Your task to perform on an android device: turn vacation reply on in the gmail app Image 0: 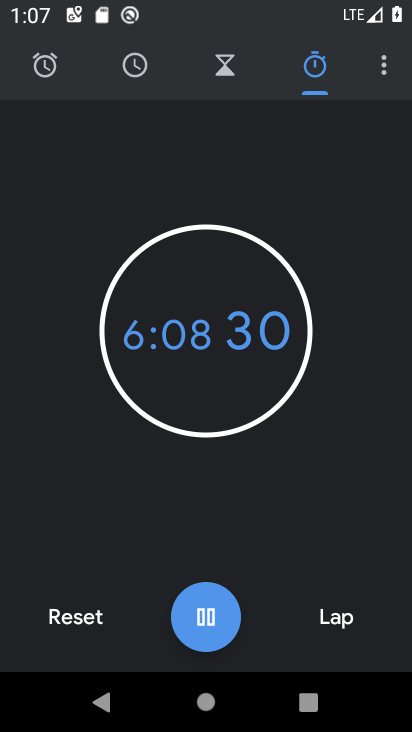
Step 0: press home button
Your task to perform on an android device: turn vacation reply on in the gmail app Image 1: 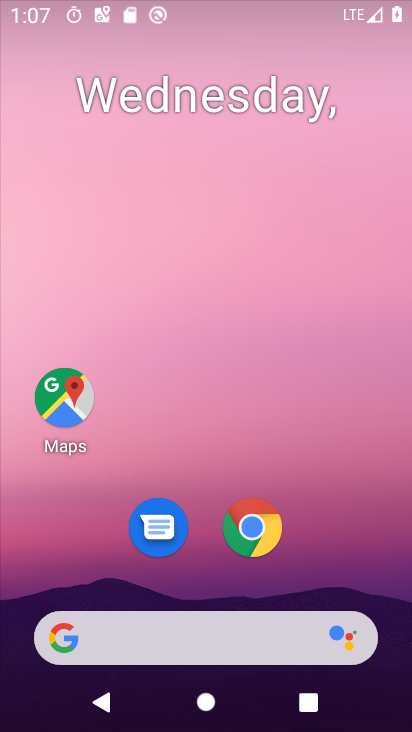
Step 1: drag from (257, 603) to (277, 9)
Your task to perform on an android device: turn vacation reply on in the gmail app Image 2: 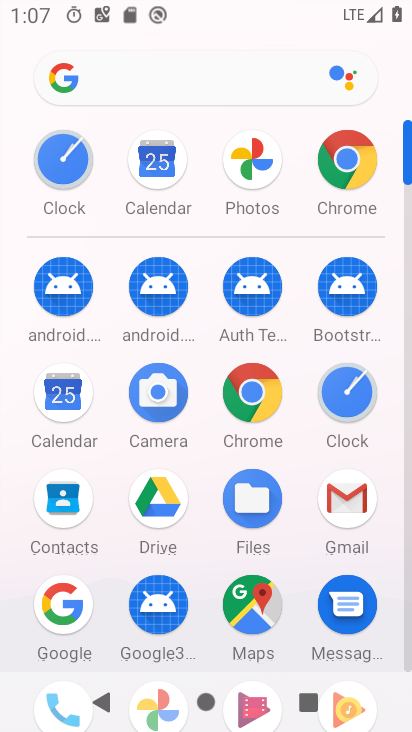
Step 2: click (358, 500)
Your task to perform on an android device: turn vacation reply on in the gmail app Image 3: 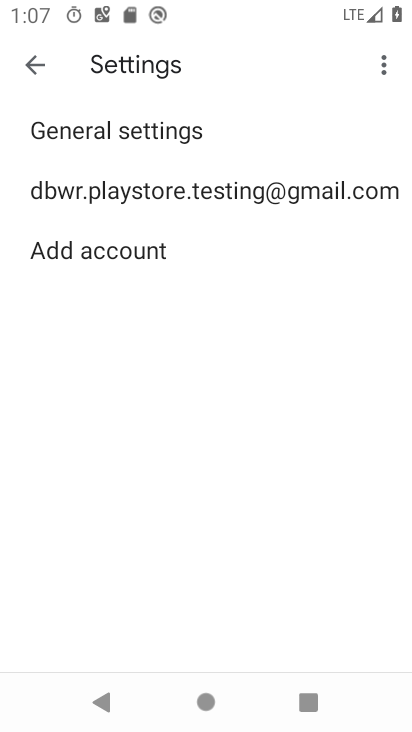
Step 3: click (109, 200)
Your task to perform on an android device: turn vacation reply on in the gmail app Image 4: 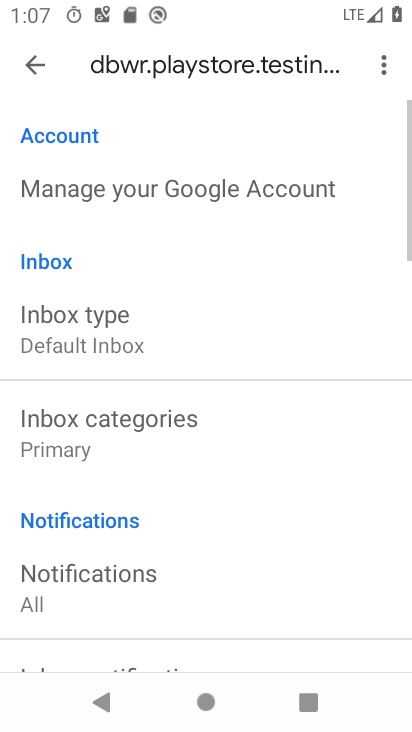
Step 4: drag from (205, 519) to (250, 29)
Your task to perform on an android device: turn vacation reply on in the gmail app Image 5: 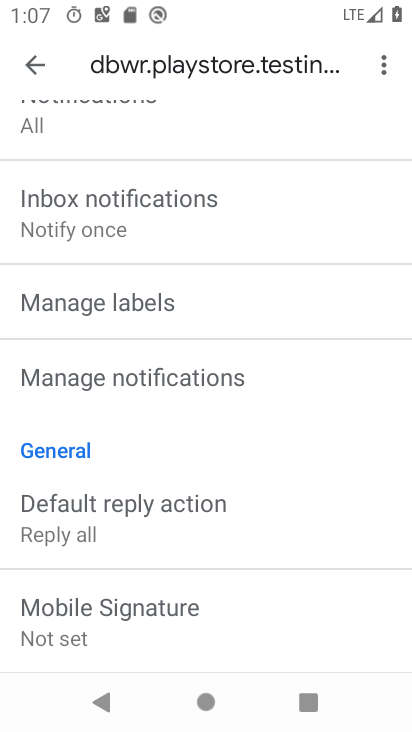
Step 5: drag from (255, 583) to (317, 36)
Your task to perform on an android device: turn vacation reply on in the gmail app Image 6: 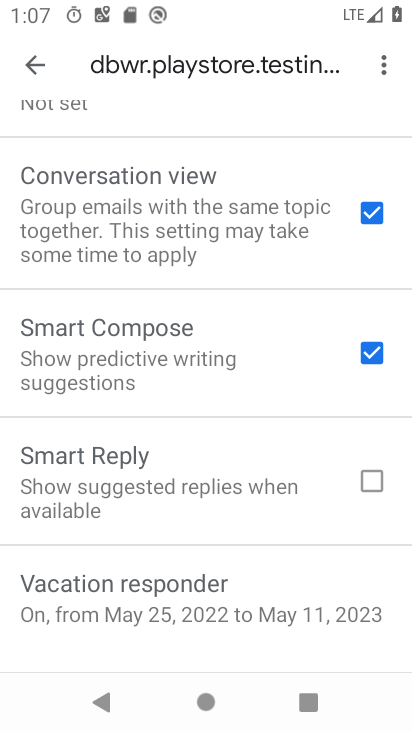
Step 6: click (202, 597)
Your task to perform on an android device: turn vacation reply on in the gmail app Image 7: 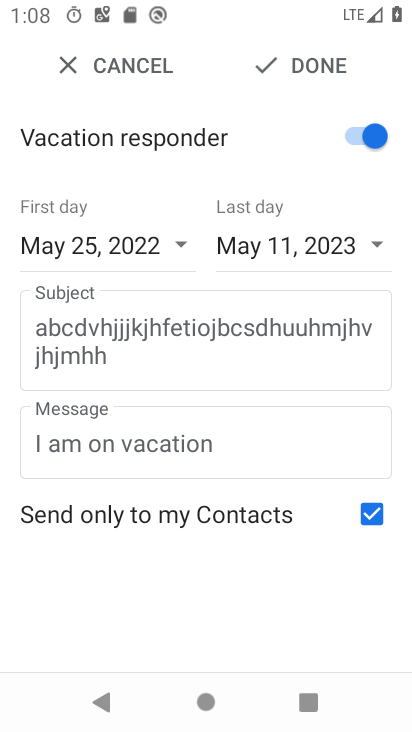
Step 7: click (323, 65)
Your task to perform on an android device: turn vacation reply on in the gmail app Image 8: 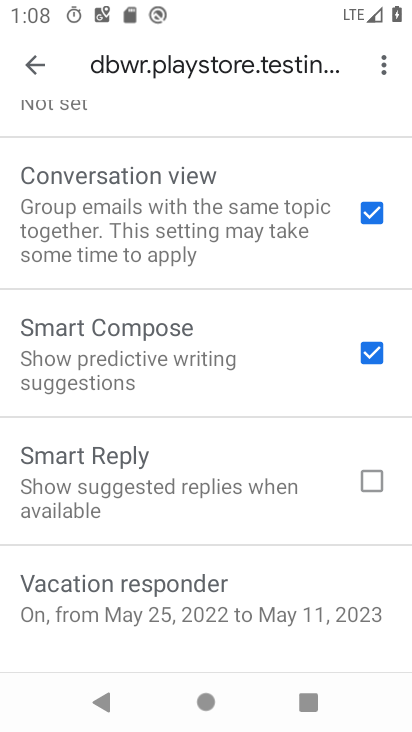
Step 8: task complete